Your task to perform on an android device: Search for Italian restaurants on Maps Image 0: 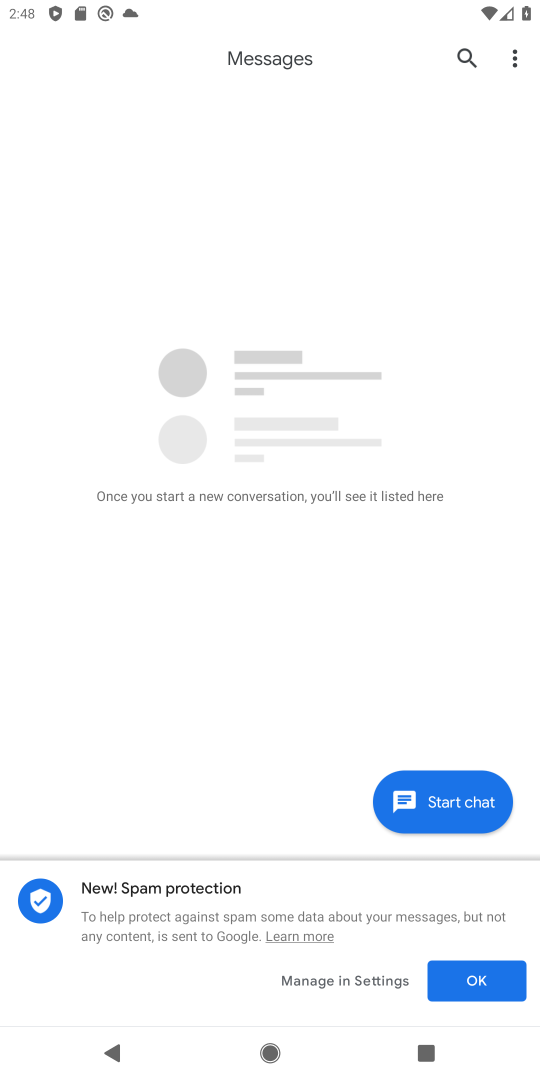
Step 0: press home button
Your task to perform on an android device: Search for Italian restaurants on Maps Image 1: 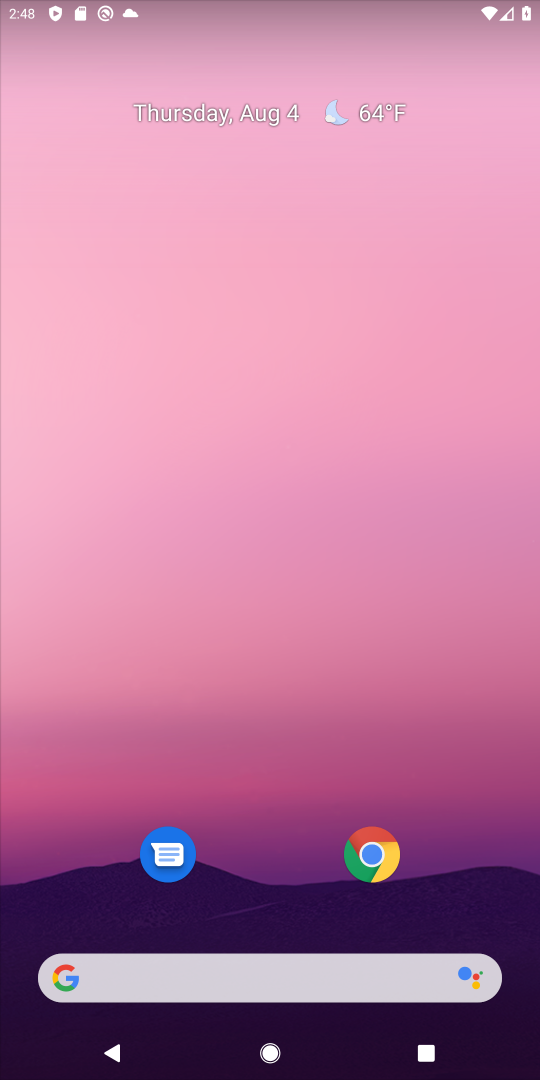
Step 1: click (330, 978)
Your task to perform on an android device: Search for Italian restaurants on Maps Image 2: 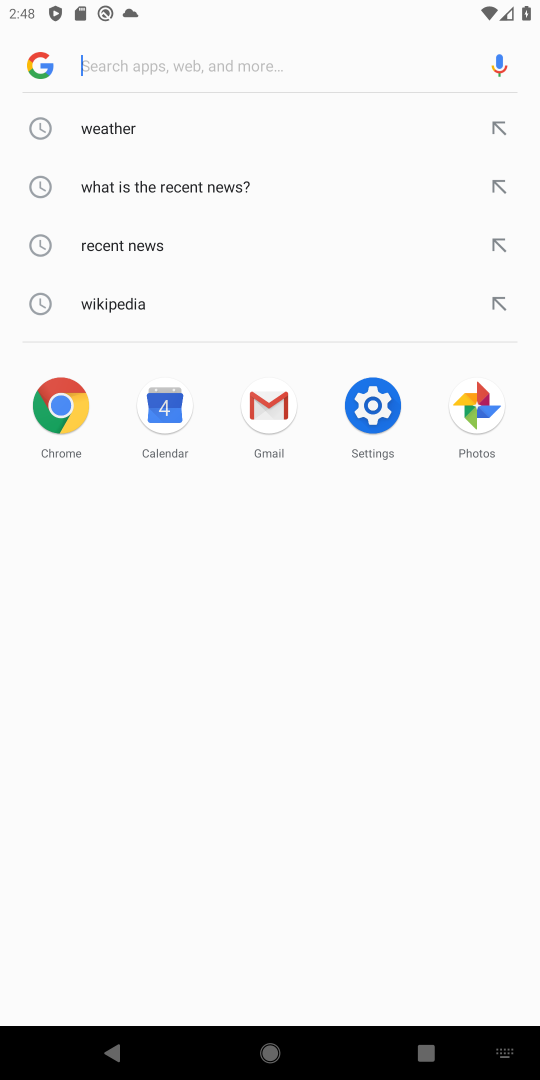
Step 2: type " Italian restaurants"
Your task to perform on an android device: Search for Italian restaurants on Maps Image 3: 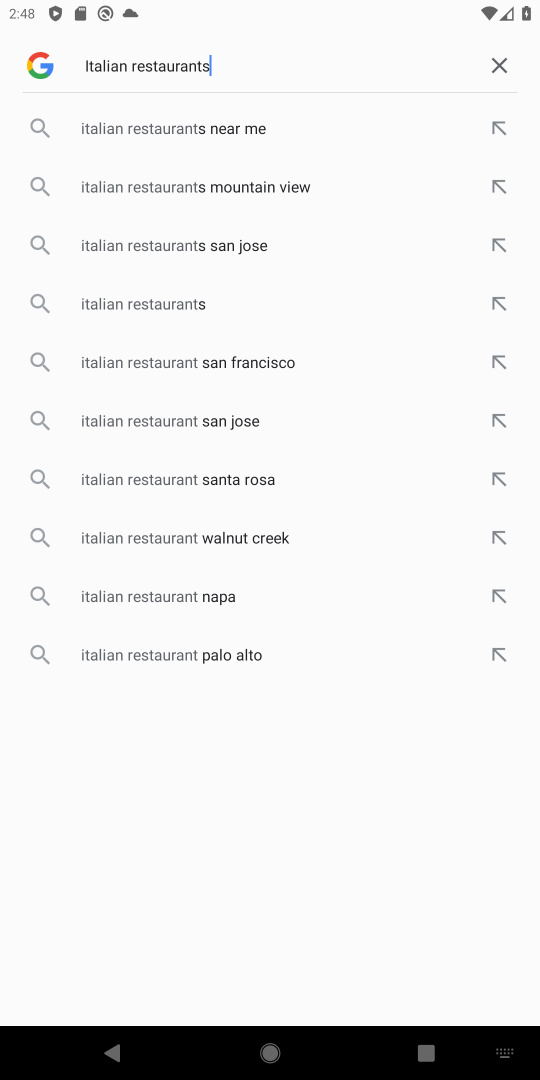
Step 3: press enter
Your task to perform on an android device: Search for Italian restaurants on Maps Image 4: 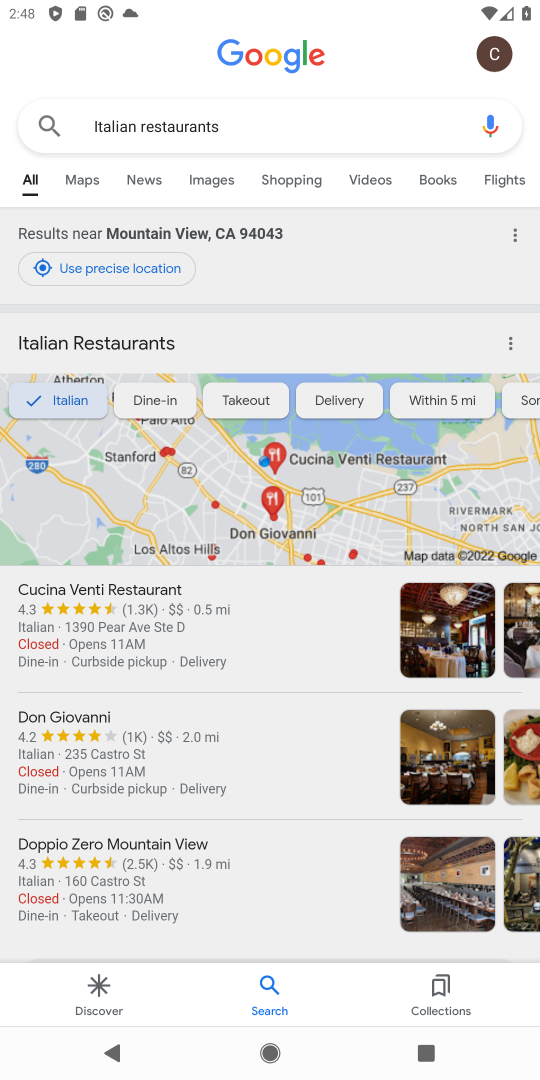
Step 4: task complete